Your task to perform on an android device: Open display settings Image 0: 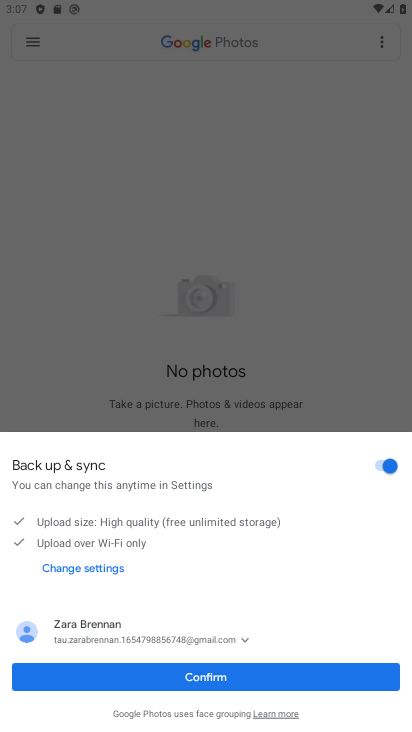
Step 0: press home button
Your task to perform on an android device: Open display settings Image 1: 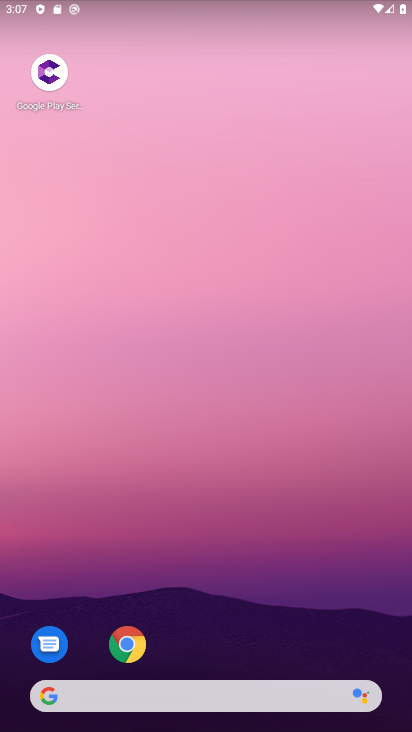
Step 1: drag from (292, 638) to (197, 159)
Your task to perform on an android device: Open display settings Image 2: 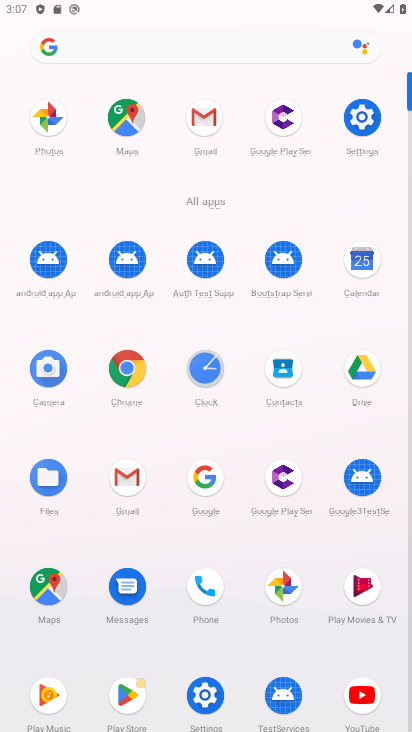
Step 2: click (370, 108)
Your task to perform on an android device: Open display settings Image 3: 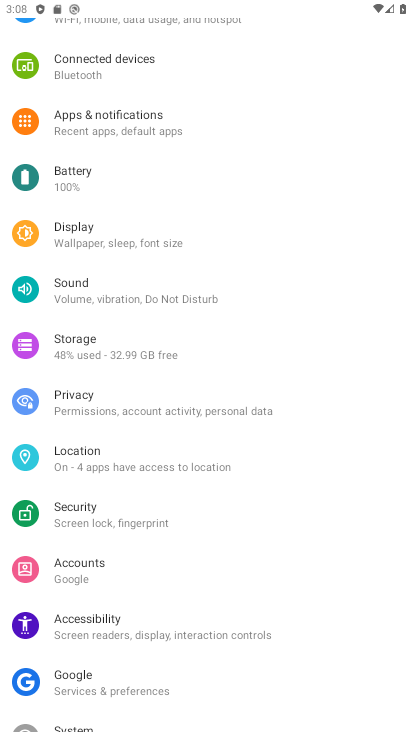
Step 3: click (222, 234)
Your task to perform on an android device: Open display settings Image 4: 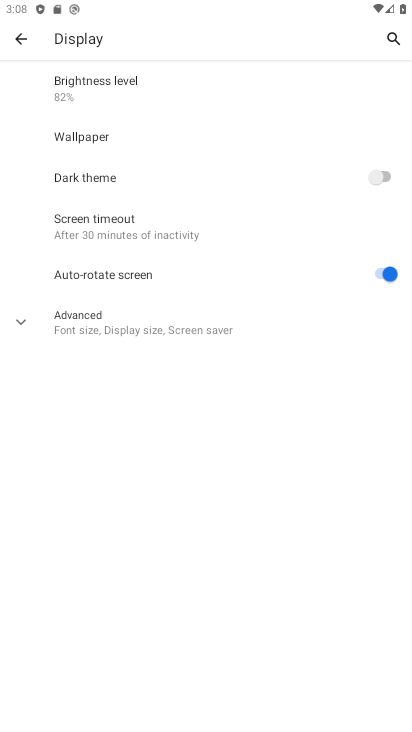
Step 4: task complete